Your task to perform on an android device: Open the Play Movies app and select the watchlist tab. Image 0: 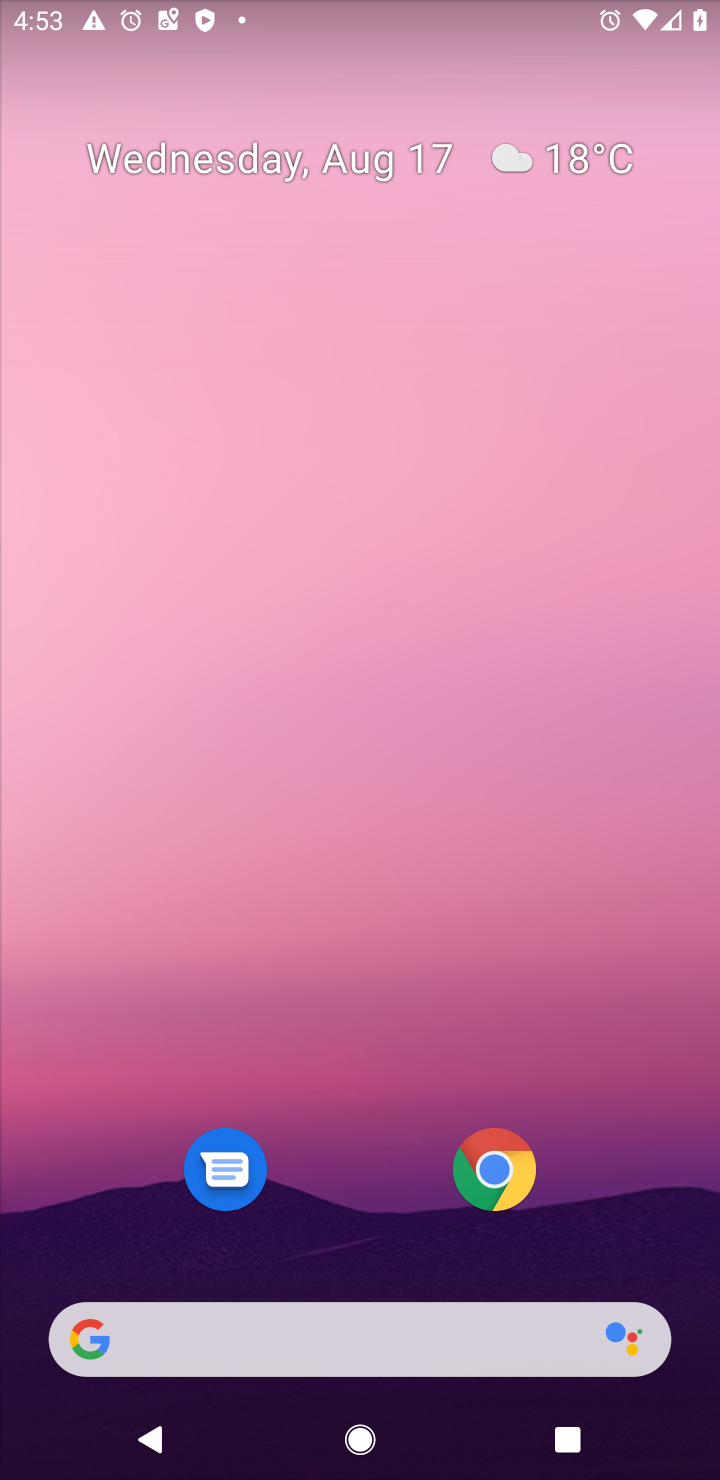
Step 0: drag from (323, 1155) to (340, 200)
Your task to perform on an android device: Open the Play Movies app and select the watchlist tab. Image 1: 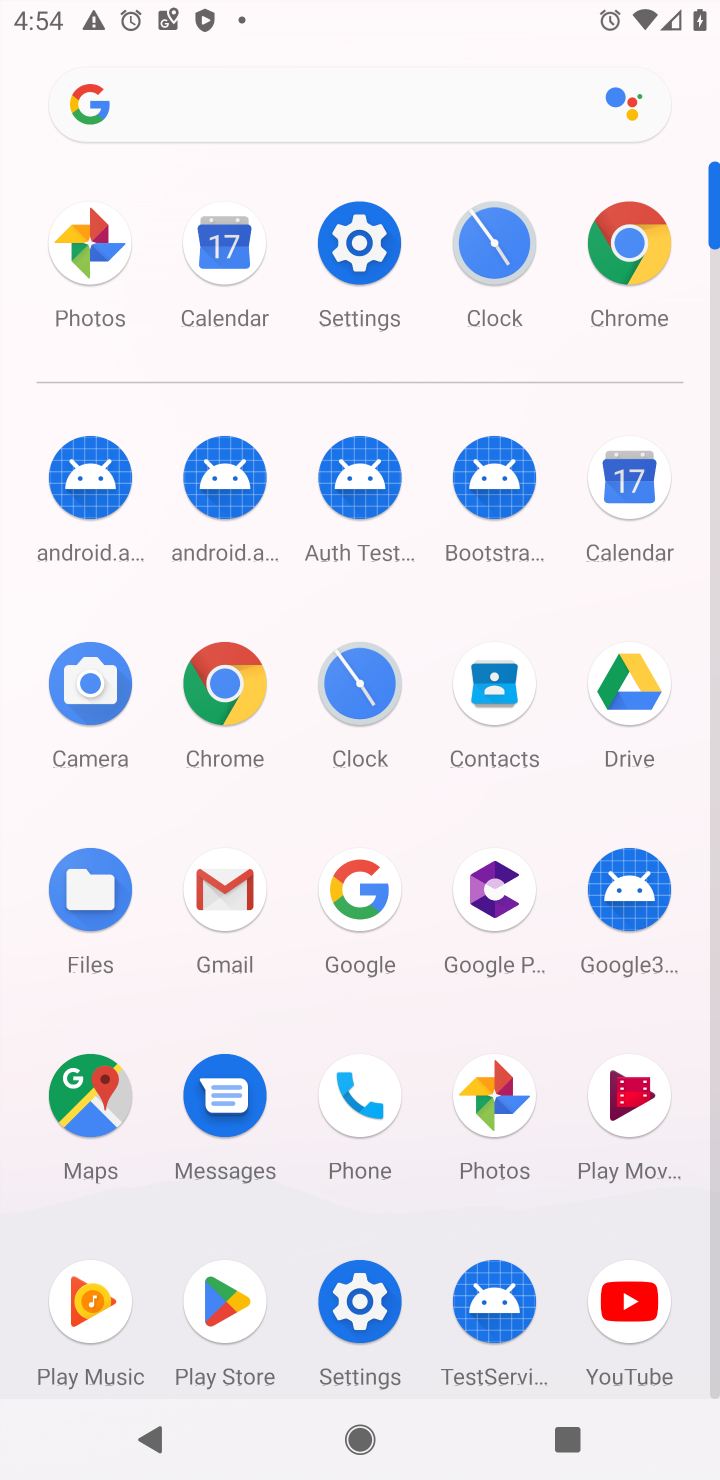
Step 1: click (608, 1114)
Your task to perform on an android device: Open the Play Movies app and select the watchlist tab. Image 2: 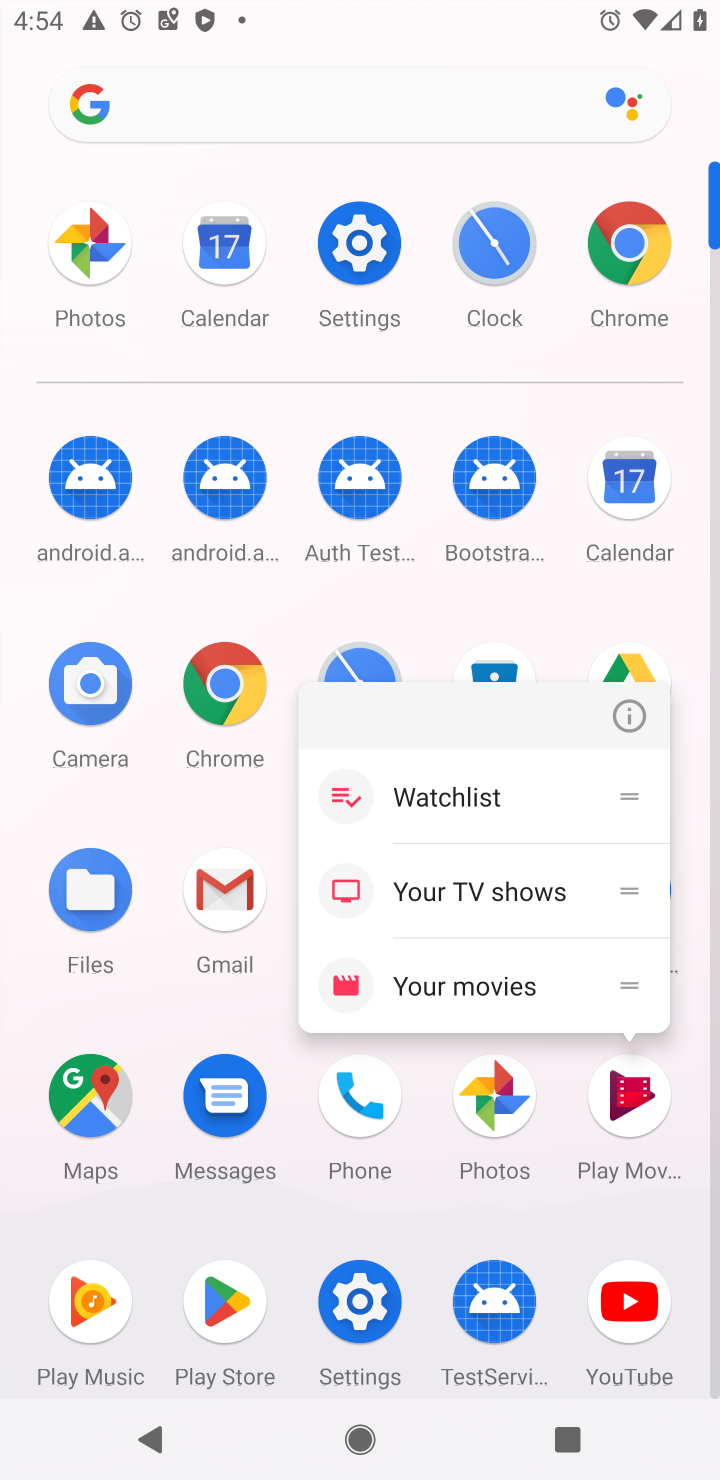
Step 2: click (634, 1078)
Your task to perform on an android device: Open the Play Movies app and select the watchlist tab. Image 3: 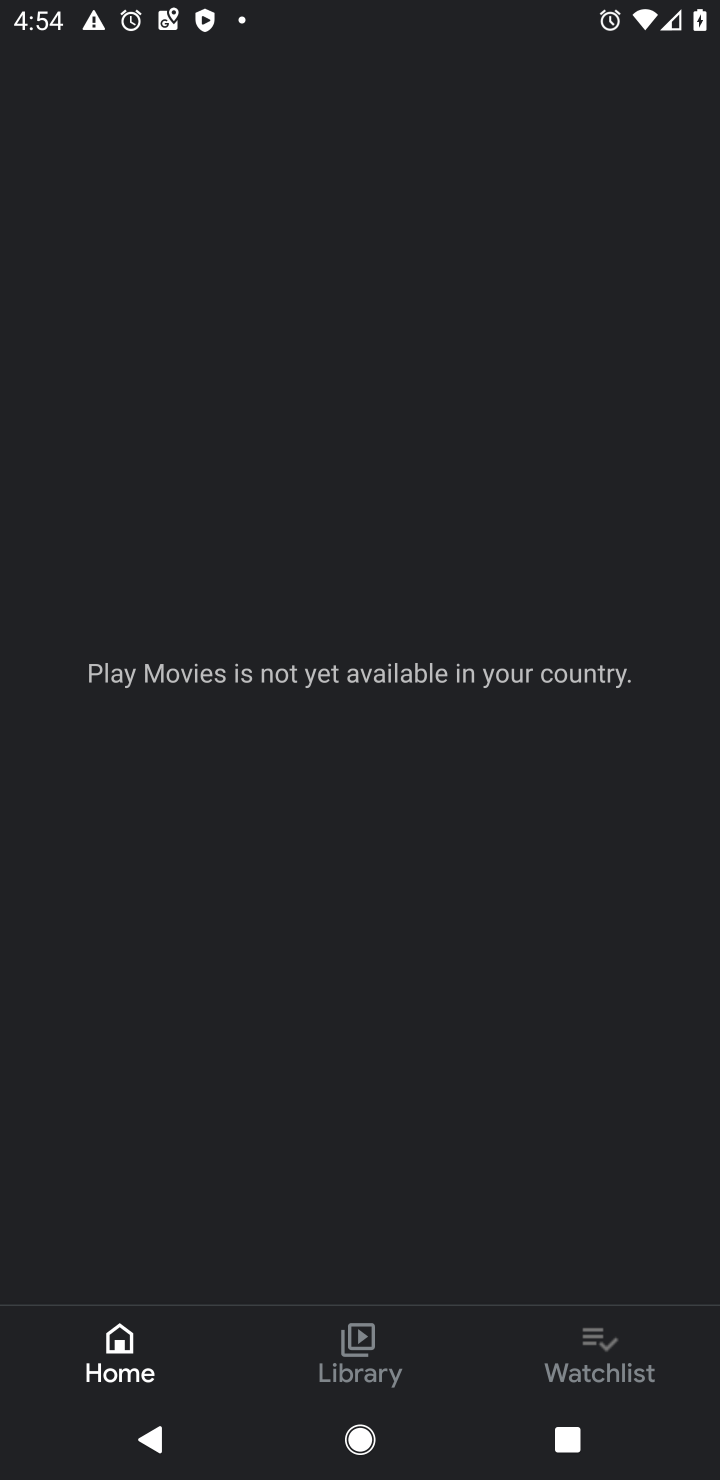
Step 3: click (613, 1352)
Your task to perform on an android device: Open the Play Movies app and select the watchlist tab. Image 4: 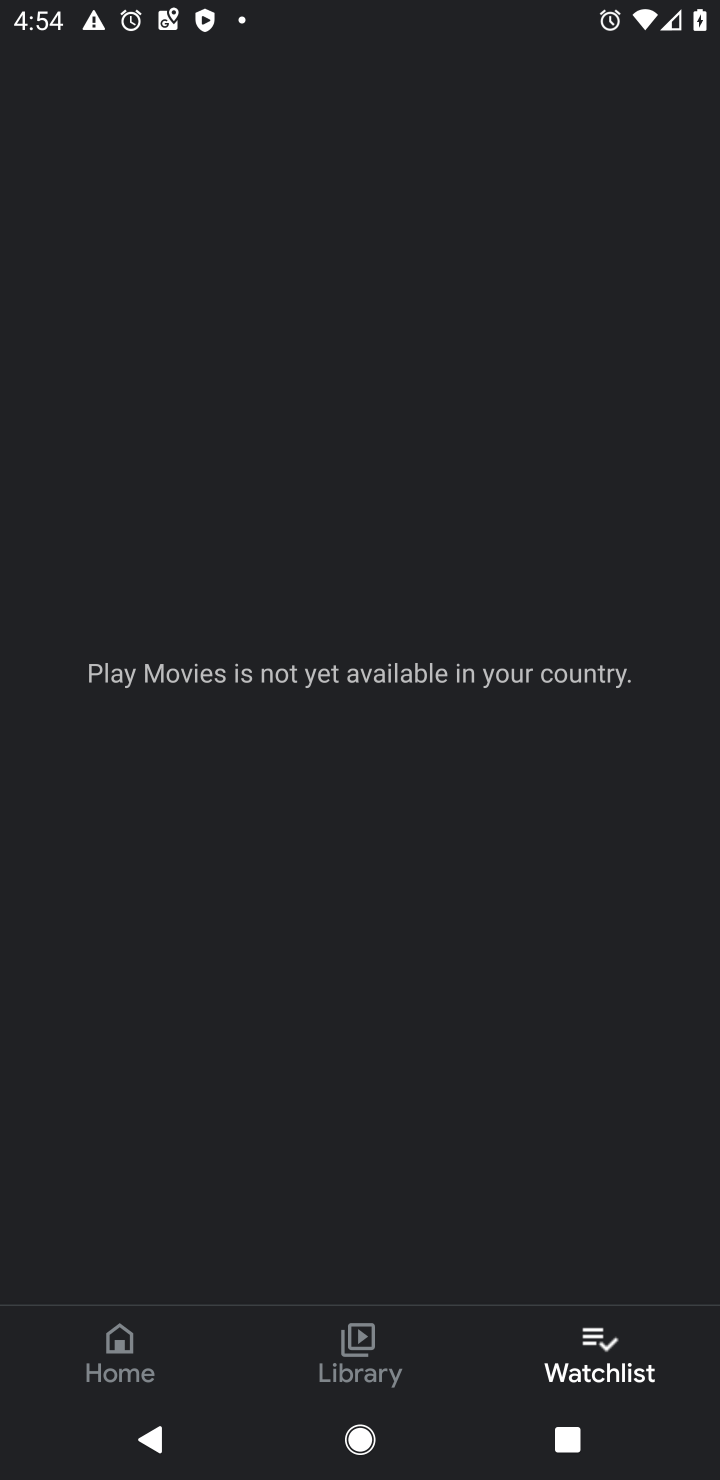
Step 4: task complete